Your task to perform on an android device: turn on sleep mode Image 0: 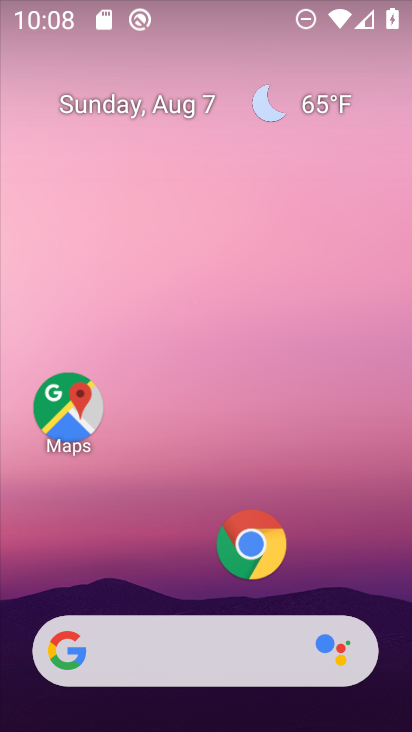
Step 0: drag from (211, 605) to (226, 188)
Your task to perform on an android device: turn on sleep mode Image 1: 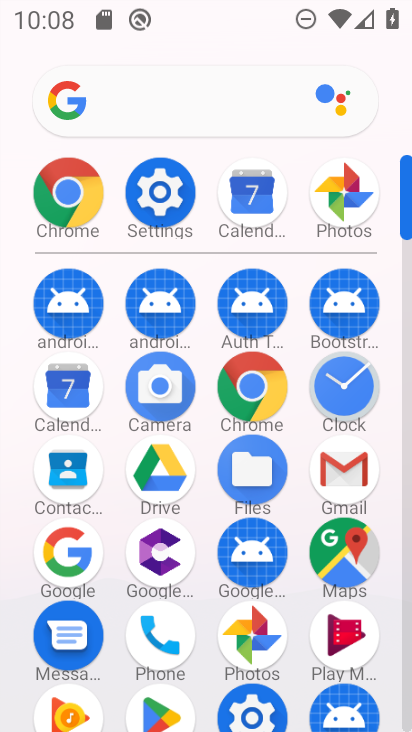
Step 1: click (154, 188)
Your task to perform on an android device: turn on sleep mode Image 2: 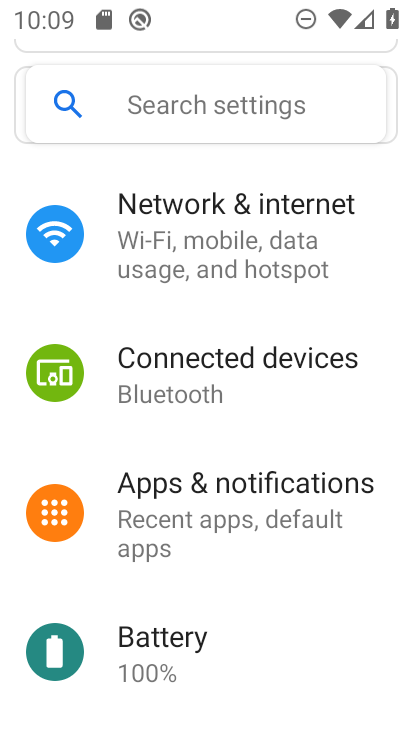
Step 2: drag from (218, 620) to (198, 72)
Your task to perform on an android device: turn on sleep mode Image 3: 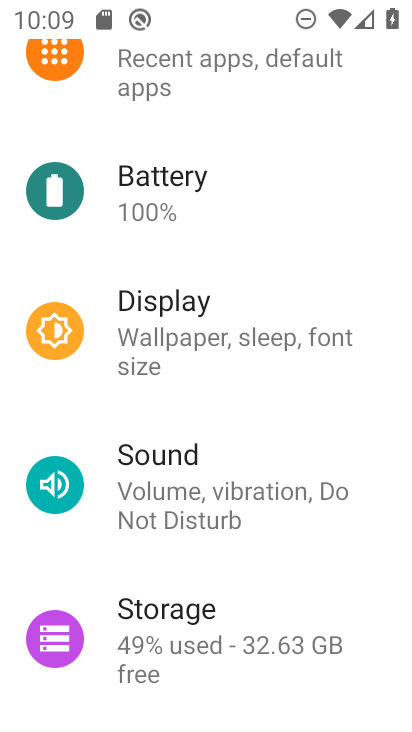
Step 3: drag from (159, 574) to (128, 104)
Your task to perform on an android device: turn on sleep mode Image 4: 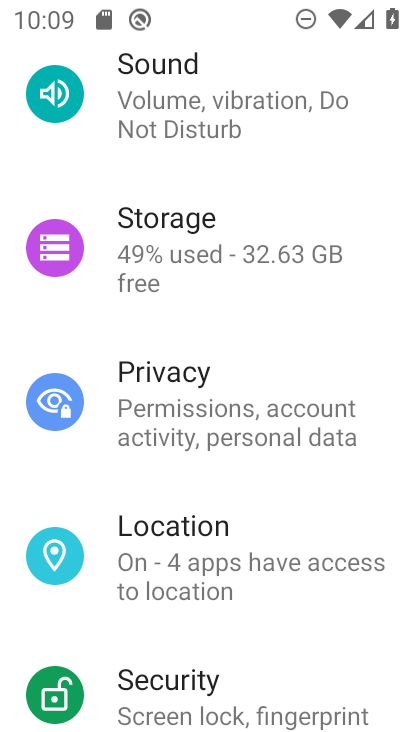
Step 4: drag from (162, 120) to (178, 636)
Your task to perform on an android device: turn on sleep mode Image 5: 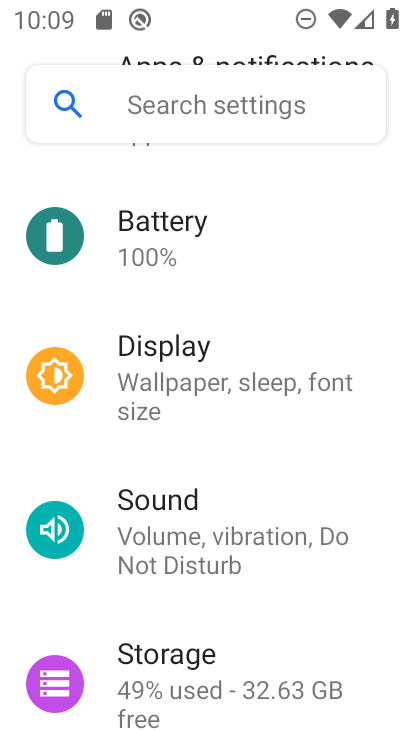
Step 5: click (146, 367)
Your task to perform on an android device: turn on sleep mode Image 6: 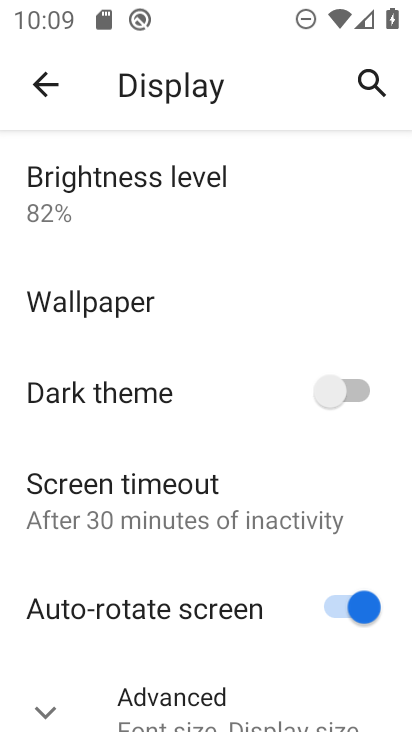
Step 6: task complete